Your task to perform on an android device: When is my next appointment? Image 0: 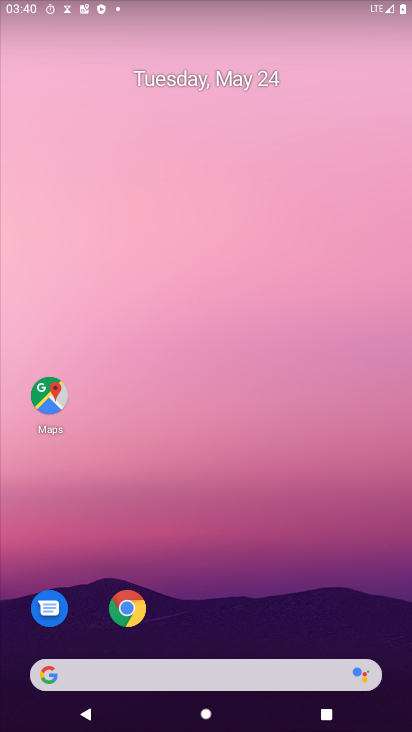
Step 0: drag from (205, 621) to (199, 270)
Your task to perform on an android device: When is my next appointment? Image 1: 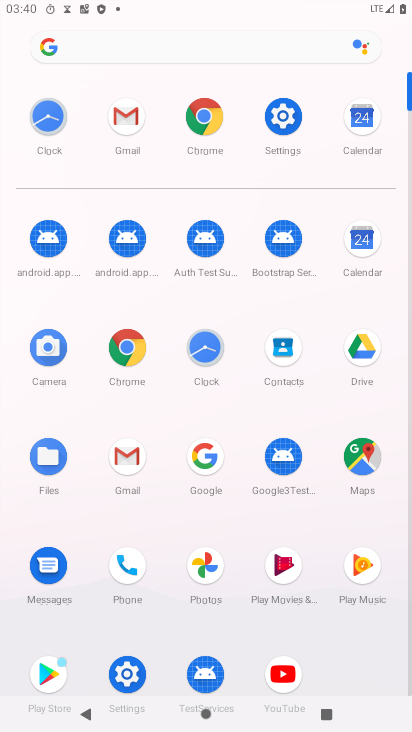
Step 1: click (362, 234)
Your task to perform on an android device: When is my next appointment? Image 2: 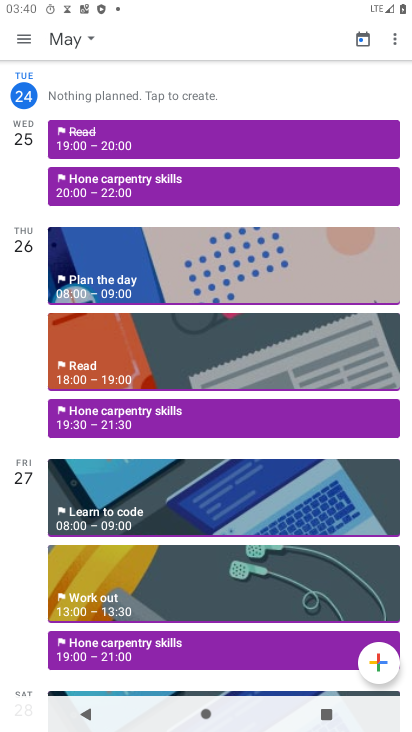
Step 2: task complete